Your task to perform on an android device: change the clock display to analog Image 0: 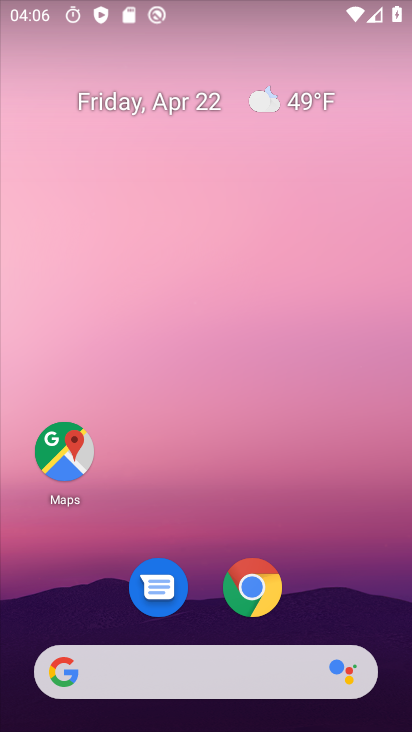
Step 0: drag from (372, 524) to (383, 80)
Your task to perform on an android device: change the clock display to analog Image 1: 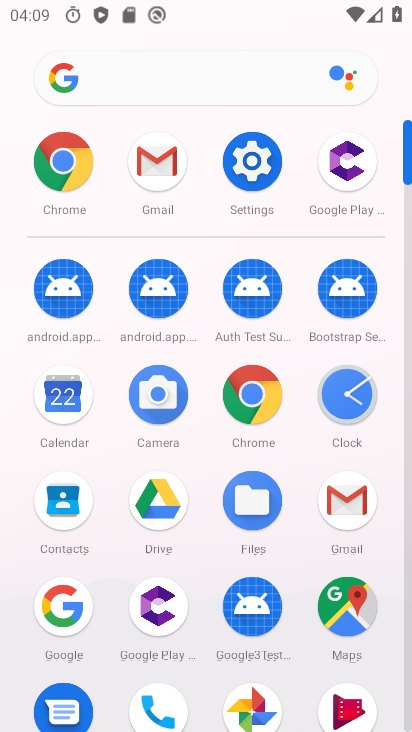
Step 1: click (344, 389)
Your task to perform on an android device: change the clock display to analog Image 2: 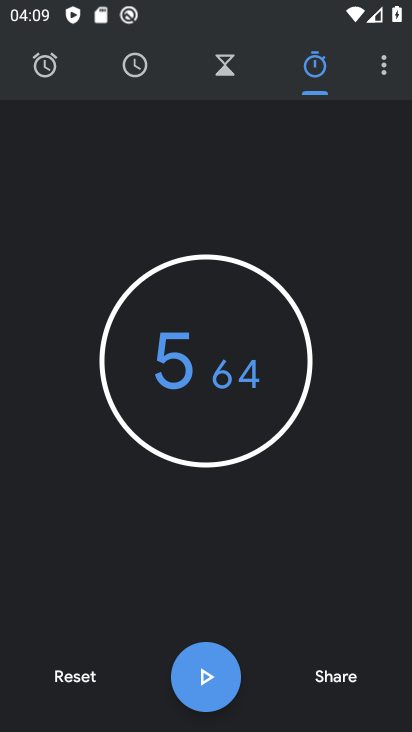
Step 2: click (379, 67)
Your task to perform on an android device: change the clock display to analog Image 3: 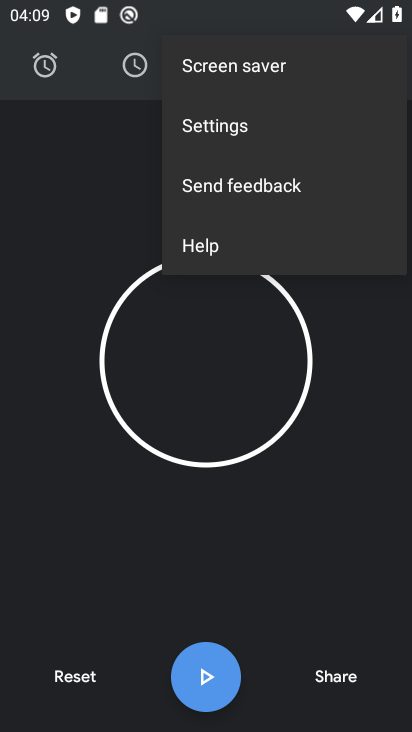
Step 3: click (223, 124)
Your task to perform on an android device: change the clock display to analog Image 4: 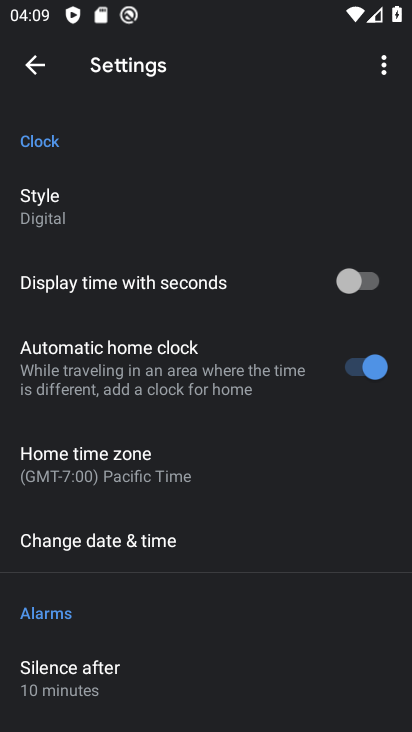
Step 4: click (27, 201)
Your task to perform on an android device: change the clock display to analog Image 5: 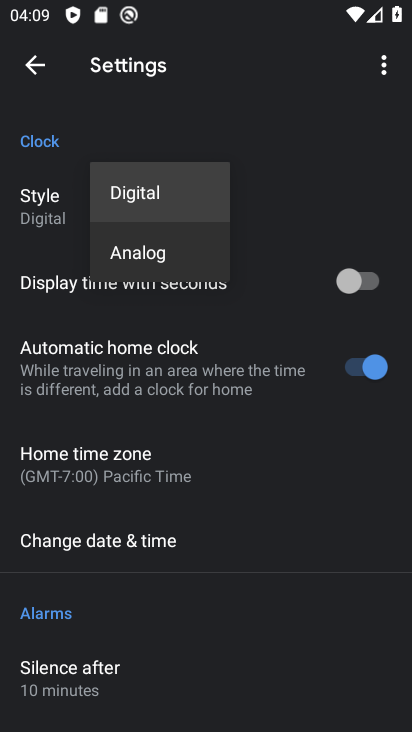
Step 5: click (142, 255)
Your task to perform on an android device: change the clock display to analog Image 6: 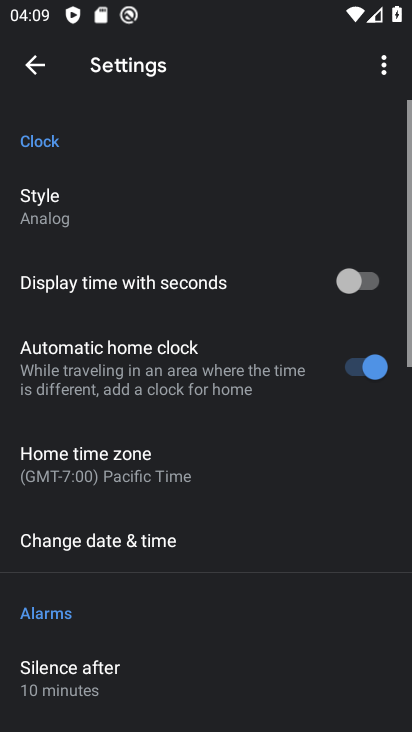
Step 6: task complete